Your task to perform on an android device: What's the weather going to be this weekend? Image 0: 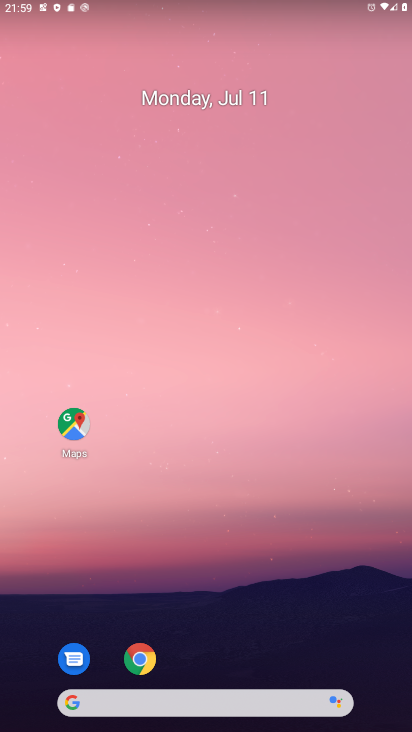
Step 0: drag from (191, 692) to (250, 17)
Your task to perform on an android device: What's the weather going to be this weekend? Image 1: 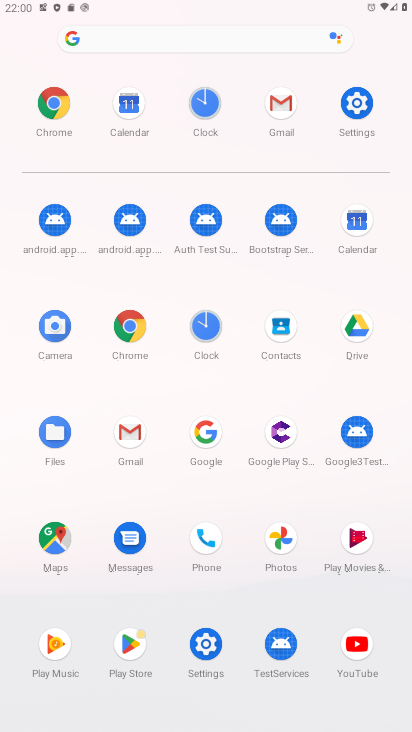
Step 1: click (251, 38)
Your task to perform on an android device: What's the weather going to be this weekend? Image 2: 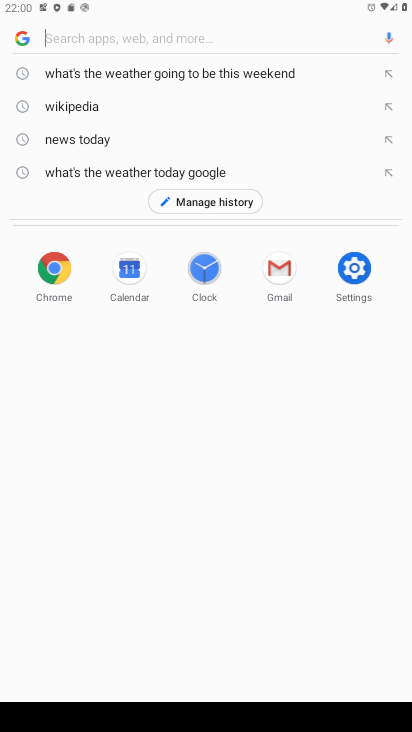
Step 2: click (245, 74)
Your task to perform on an android device: What's the weather going to be this weekend? Image 3: 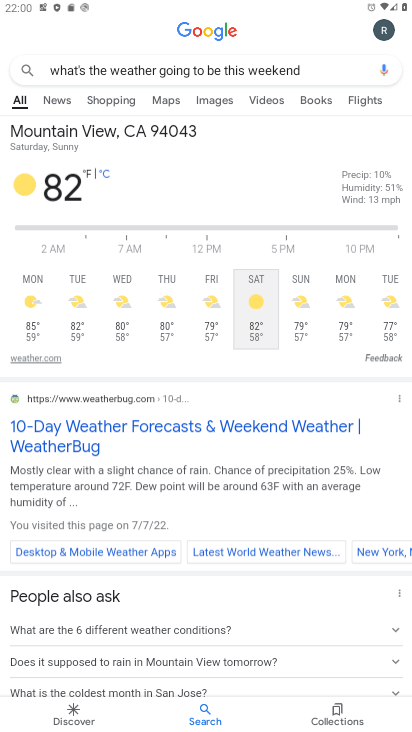
Step 3: task complete